Your task to perform on an android device: turn on showing notifications on the lock screen Image 0: 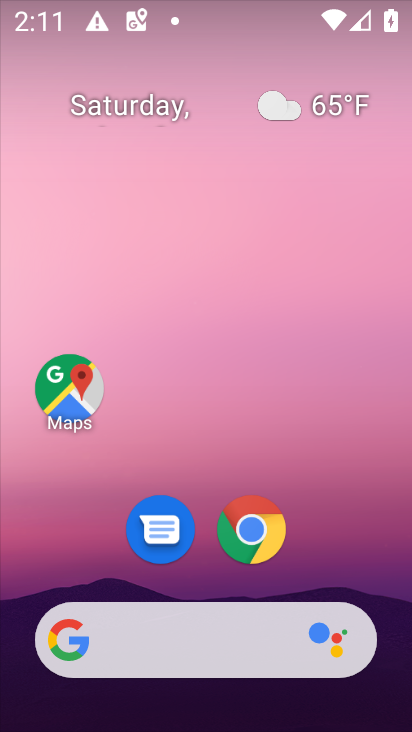
Step 0: drag from (383, 593) to (337, 84)
Your task to perform on an android device: turn on showing notifications on the lock screen Image 1: 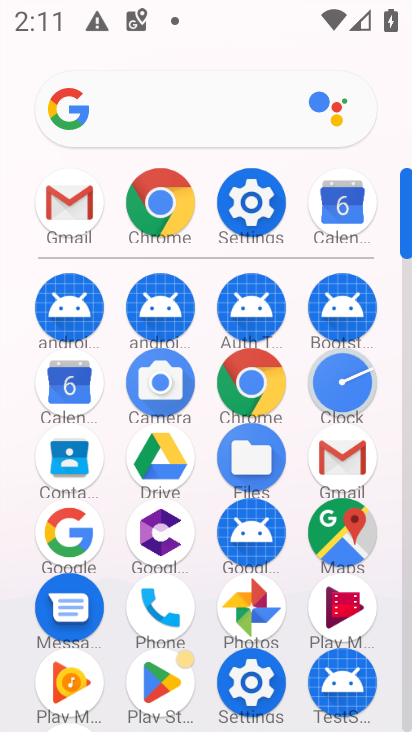
Step 1: click (249, 199)
Your task to perform on an android device: turn on showing notifications on the lock screen Image 2: 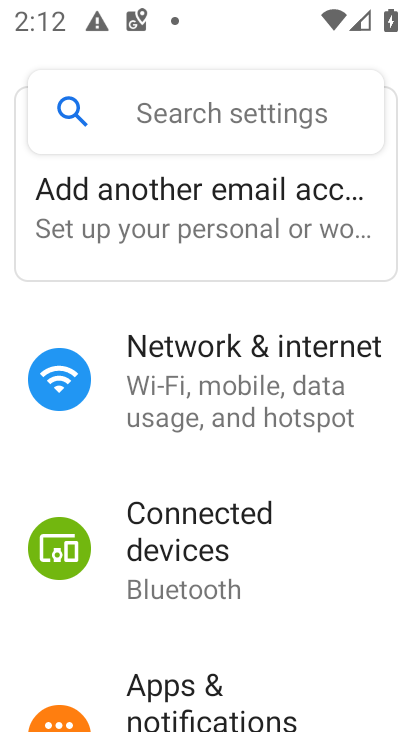
Step 2: click (268, 701)
Your task to perform on an android device: turn on showing notifications on the lock screen Image 3: 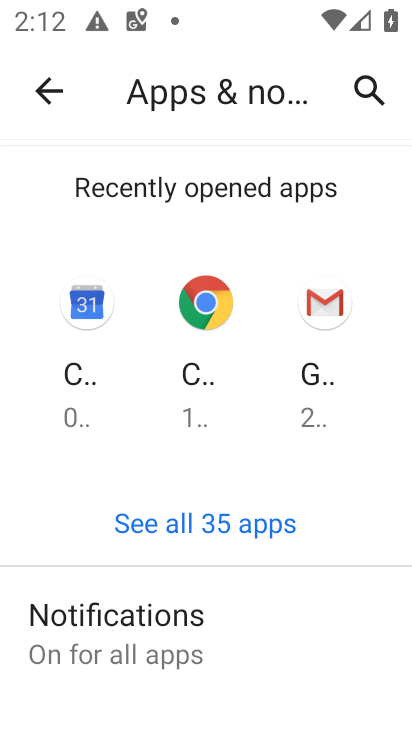
Step 3: drag from (268, 701) to (227, 277)
Your task to perform on an android device: turn on showing notifications on the lock screen Image 4: 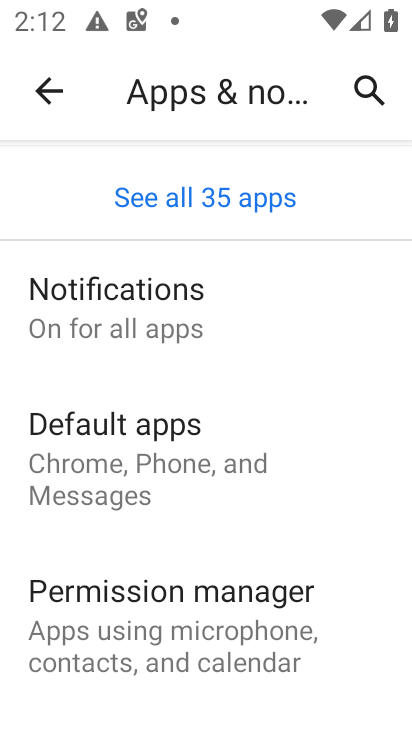
Step 4: click (199, 314)
Your task to perform on an android device: turn on showing notifications on the lock screen Image 5: 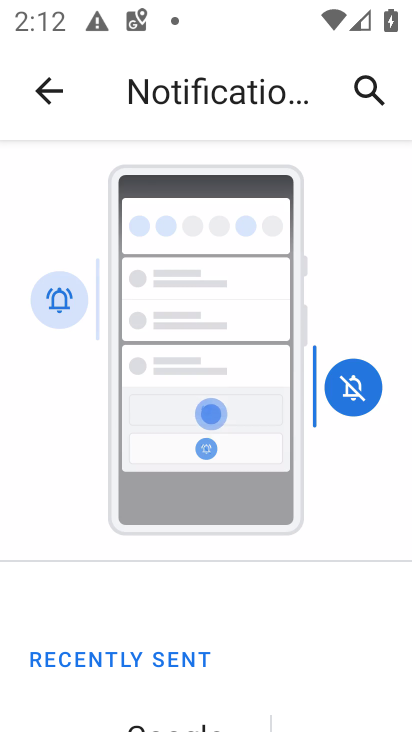
Step 5: drag from (273, 702) to (169, 84)
Your task to perform on an android device: turn on showing notifications on the lock screen Image 6: 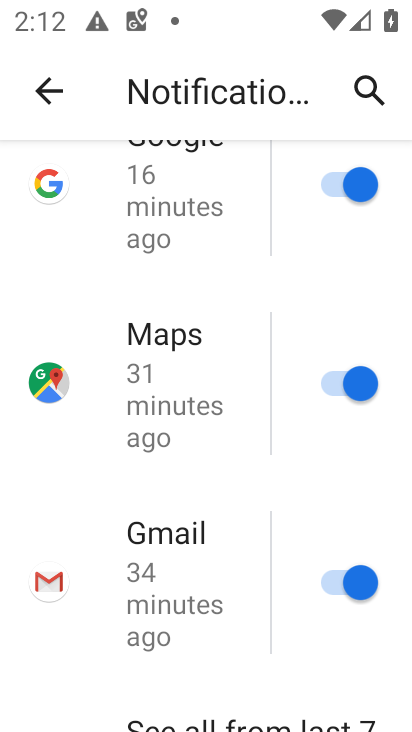
Step 6: drag from (255, 567) to (165, 3)
Your task to perform on an android device: turn on showing notifications on the lock screen Image 7: 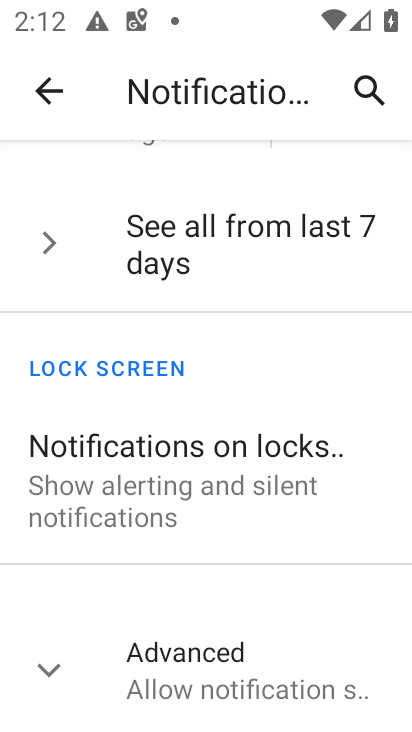
Step 7: click (265, 475)
Your task to perform on an android device: turn on showing notifications on the lock screen Image 8: 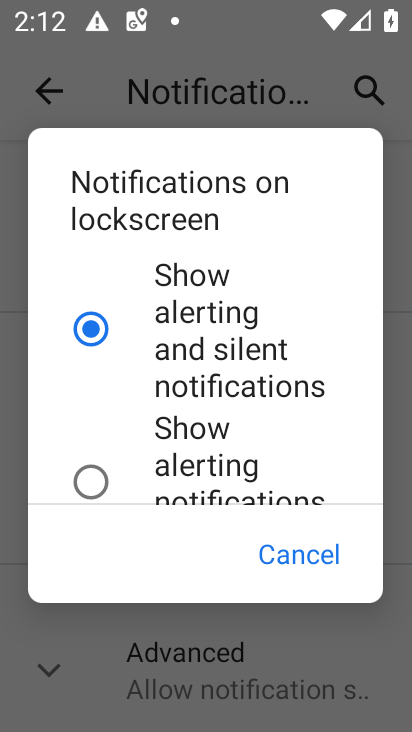
Step 8: task complete